Your task to perform on an android device: Open Youtube and go to the subscriptions tab Image 0: 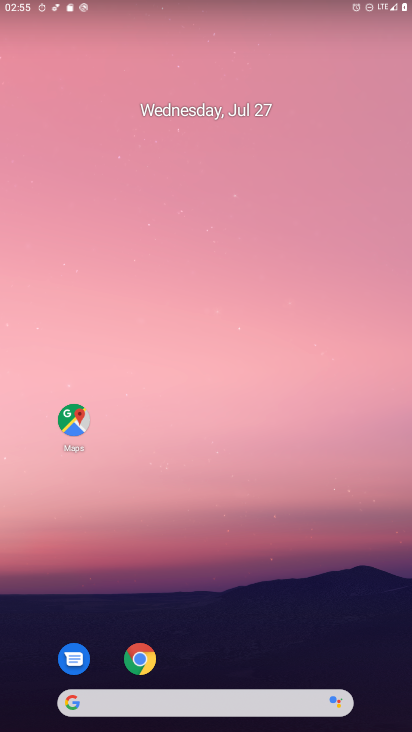
Step 0: drag from (320, 613) to (251, 50)
Your task to perform on an android device: Open Youtube and go to the subscriptions tab Image 1: 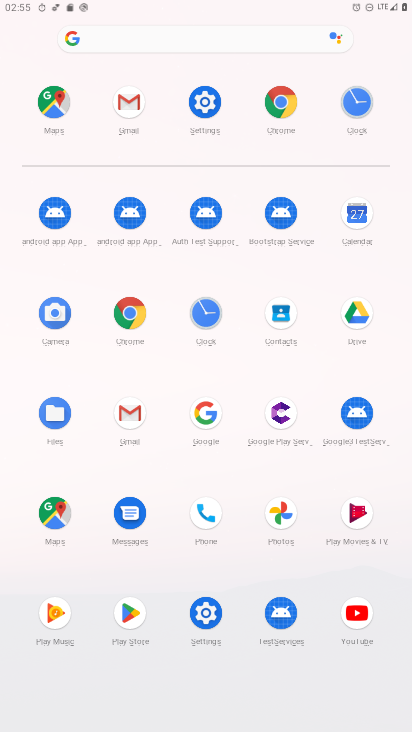
Step 1: click (357, 616)
Your task to perform on an android device: Open Youtube and go to the subscriptions tab Image 2: 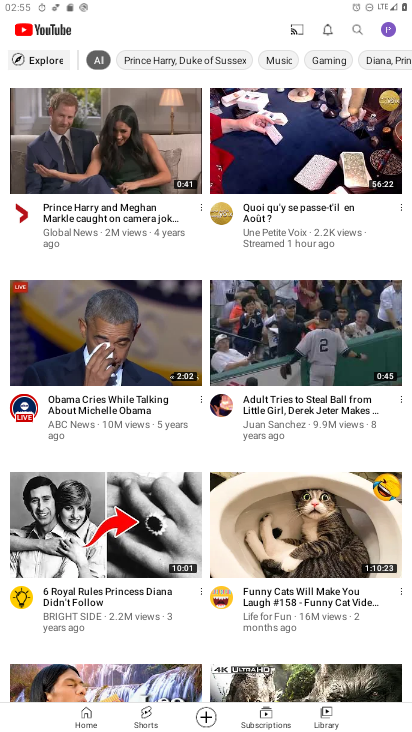
Step 2: click (275, 708)
Your task to perform on an android device: Open Youtube and go to the subscriptions tab Image 3: 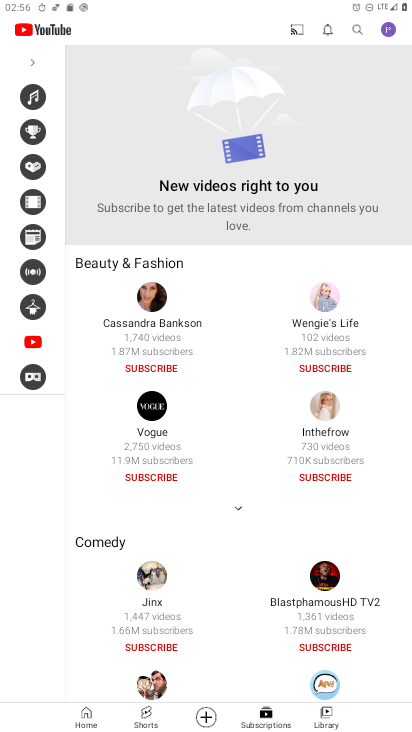
Step 3: task complete